Your task to perform on an android device: Is it going to rain tomorrow? Image 0: 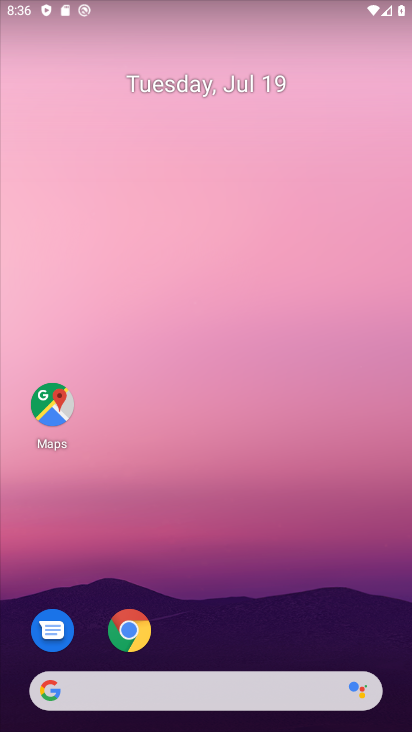
Step 0: click (140, 624)
Your task to perform on an android device: Is it going to rain tomorrow? Image 1: 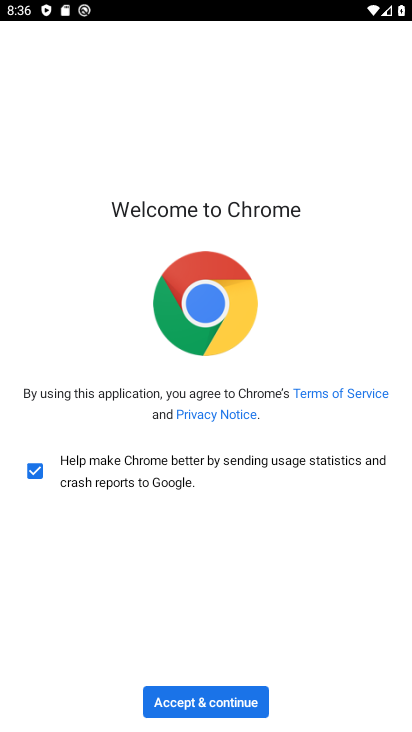
Step 1: click (200, 709)
Your task to perform on an android device: Is it going to rain tomorrow? Image 2: 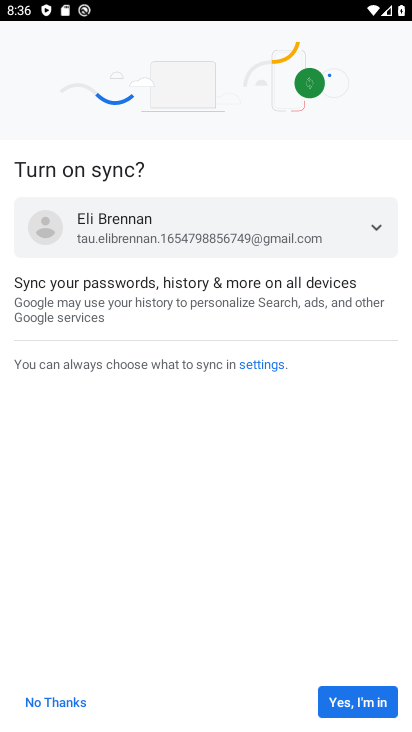
Step 2: click (355, 702)
Your task to perform on an android device: Is it going to rain tomorrow? Image 3: 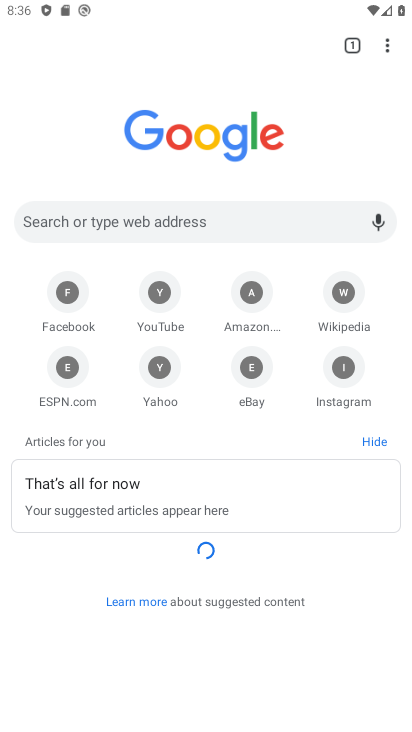
Step 3: click (202, 45)
Your task to perform on an android device: Is it going to rain tomorrow? Image 4: 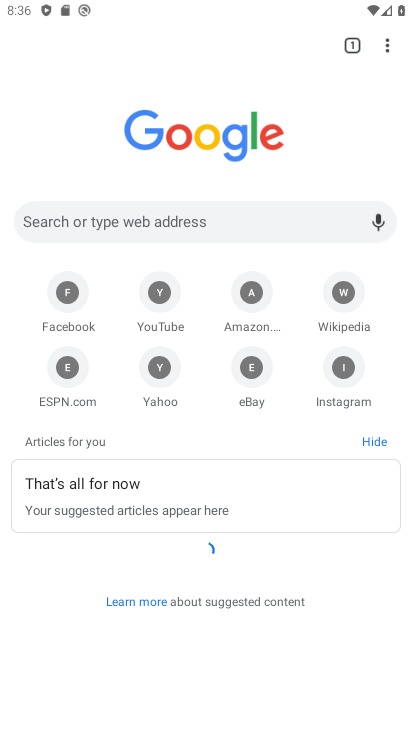
Step 4: click (225, 211)
Your task to perform on an android device: Is it going to rain tomorrow? Image 5: 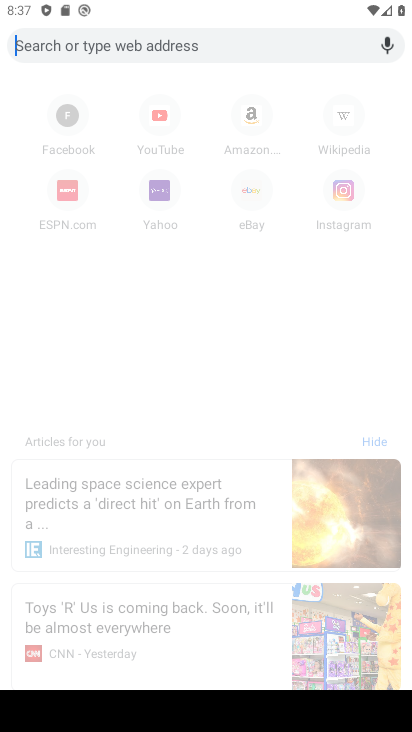
Step 5: type "Is it going to rain tomorrow?"
Your task to perform on an android device: Is it going to rain tomorrow? Image 6: 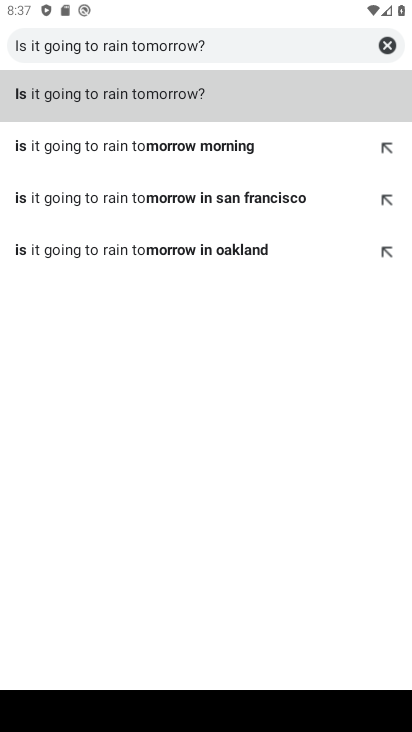
Step 6: click (186, 92)
Your task to perform on an android device: Is it going to rain tomorrow? Image 7: 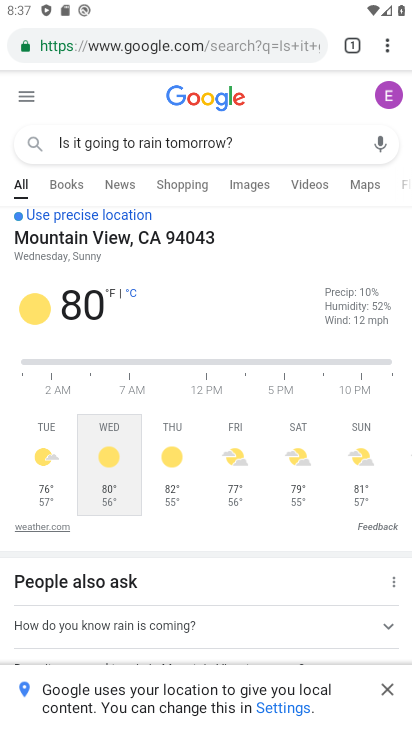
Step 7: task complete